Your task to perform on an android device: set an alarm Image 0: 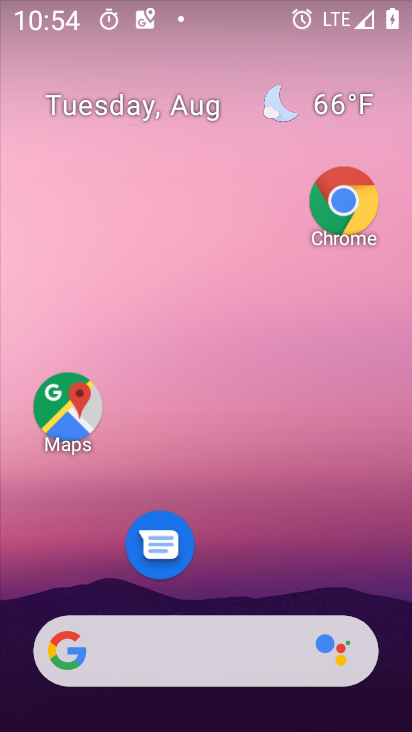
Step 0: drag from (204, 593) to (250, 35)
Your task to perform on an android device: set an alarm Image 1: 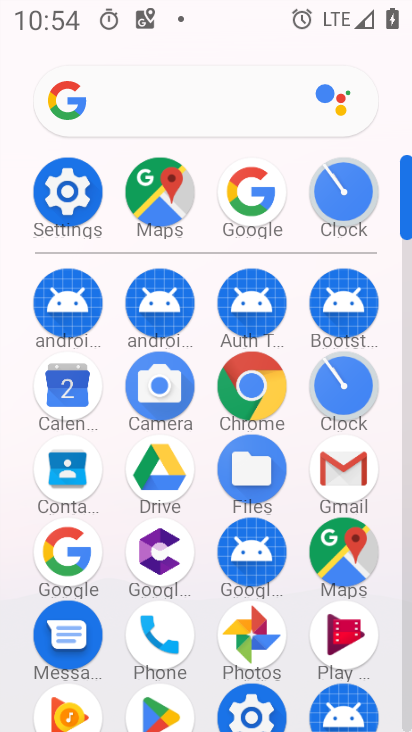
Step 1: click (346, 407)
Your task to perform on an android device: set an alarm Image 2: 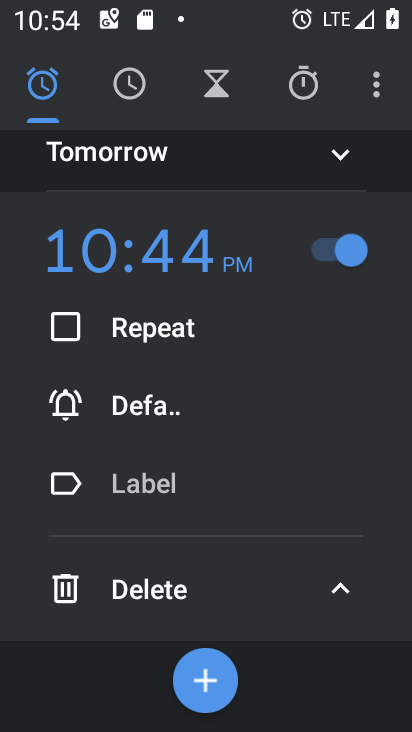
Step 2: click (205, 684)
Your task to perform on an android device: set an alarm Image 3: 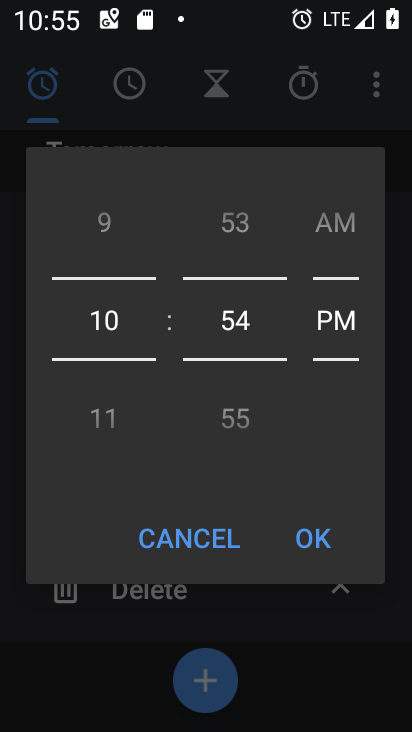
Step 3: click (317, 527)
Your task to perform on an android device: set an alarm Image 4: 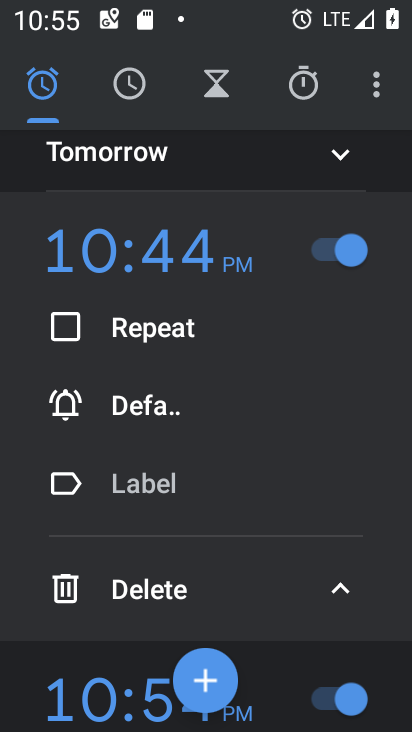
Step 4: task complete